Your task to perform on an android device: all mails in gmail Image 0: 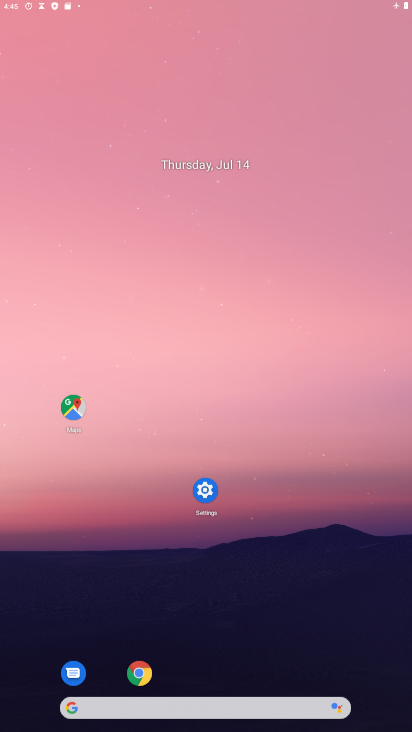
Step 0: drag from (175, 660) to (113, 189)
Your task to perform on an android device: all mails in gmail Image 1: 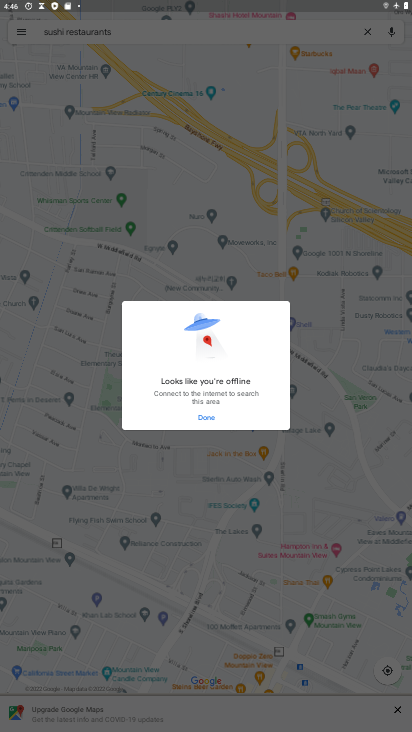
Step 1: task complete